Your task to perform on an android device: Go to CNN.com Image 0: 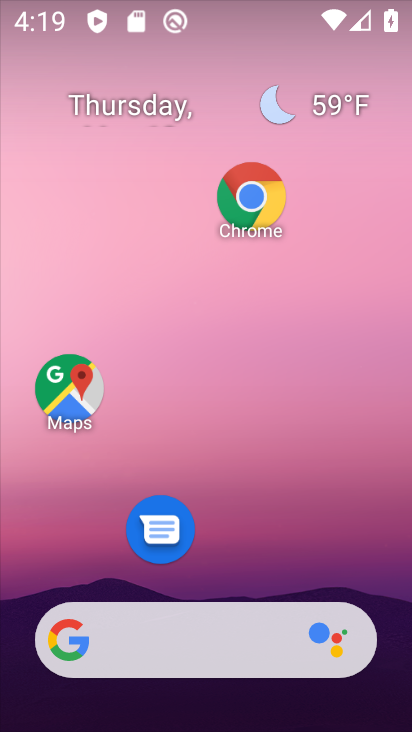
Step 0: click (251, 188)
Your task to perform on an android device: Go to CNN.com Image 1: 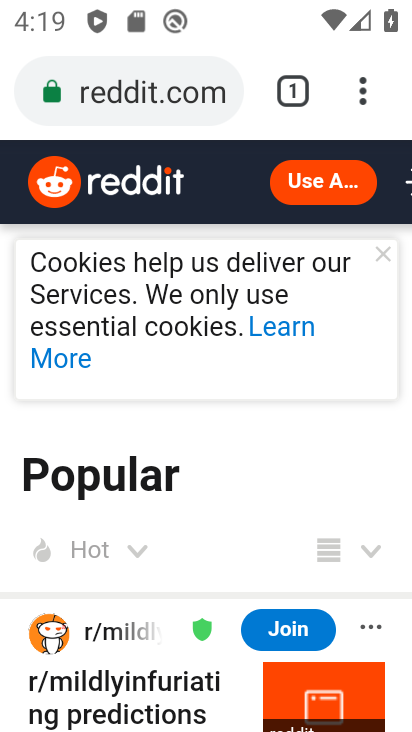
Step 1: click (291, 86)
Your task to perform on an android device: Go to CNN.com Image 2: 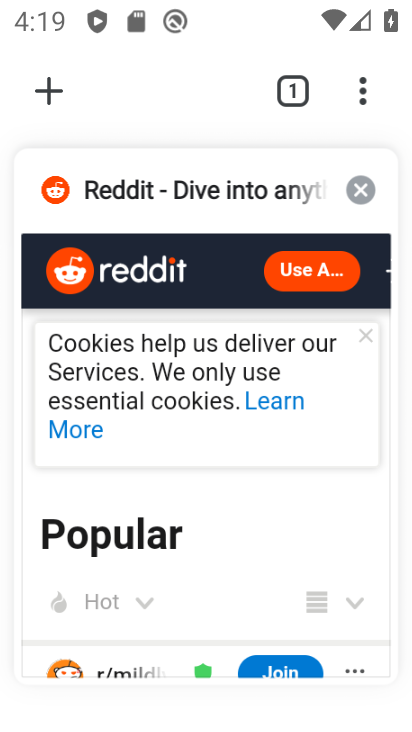
Step 2: click (361, 194)
Your task to perform on an android device: Go to CNN.com Image 3: 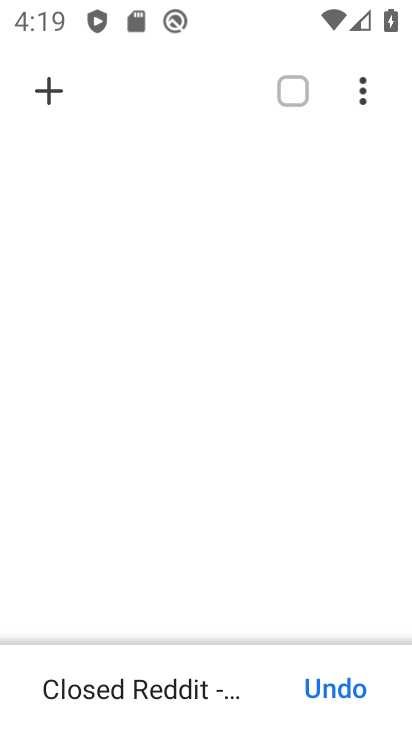
Step 3: click (44, 86)
Your task to perform on an android device: Go to CNN.com Image 4: 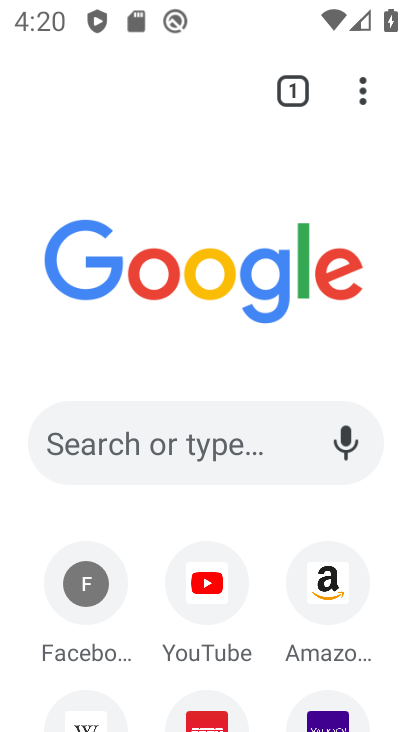
Step 4: click (135, 435)
Your task to perform on an android device: Go to CNN.com Image 5: 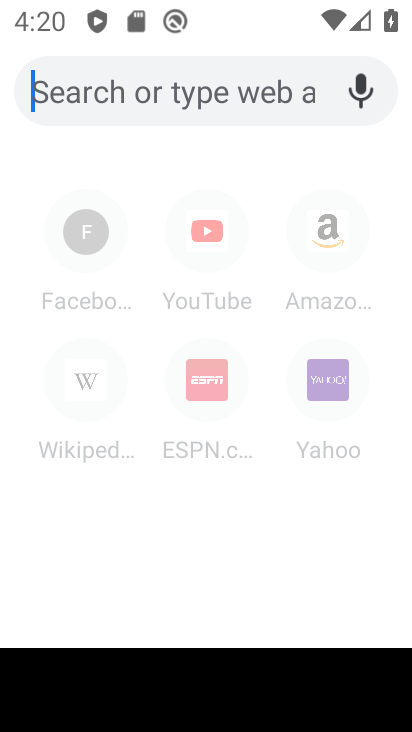
Step 5: type "cnn.com"
Your task to perform on an android device: Go to CNN.com Image 6: 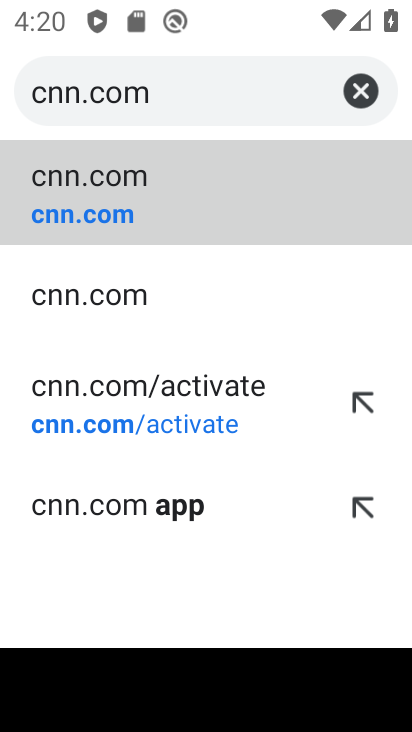
Step 6: click (85, 195)
Your task to perform on an android device: Go to CNN.com Image 7: 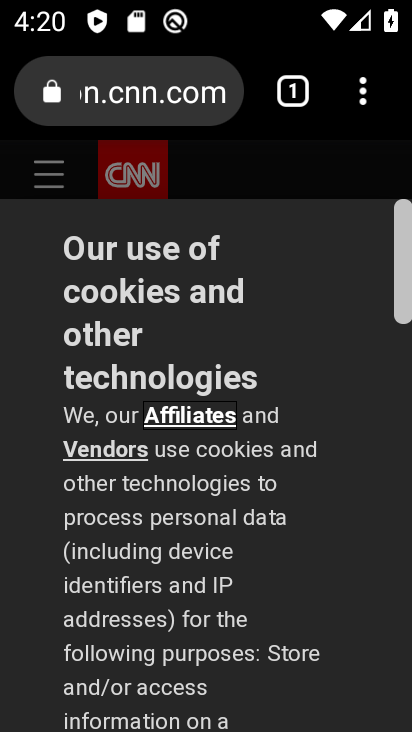
Step 7: task complete